Your task to perform on an android device: Go to Wikipedia Image 0: 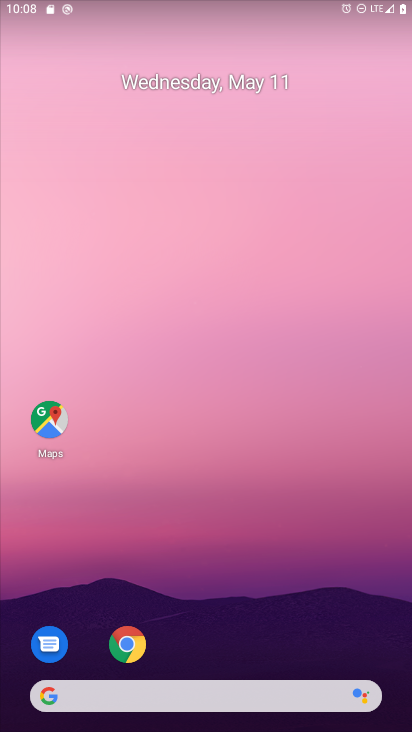
Step 0: click (127, 647)
Your task to perform on an android device: Go to Wikipedia Image 1: 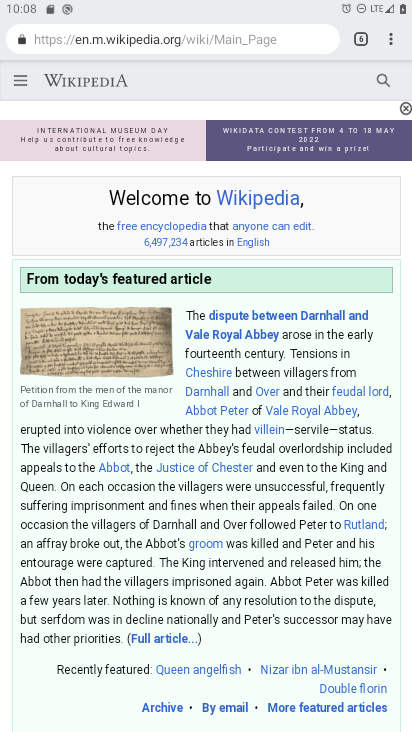
Step 1: task complete